Your task to perform on an android device: Go to battery settings Image 0: 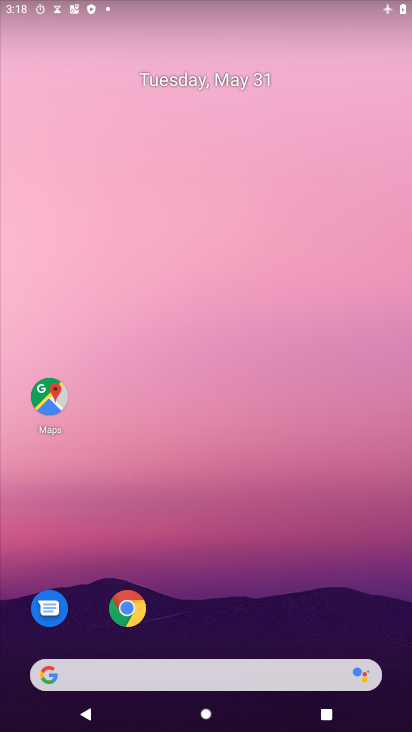
Step 0: drag from (232, 614) to (238, 150)
Your task to perform on an android device: Go to battery settings Image 1: 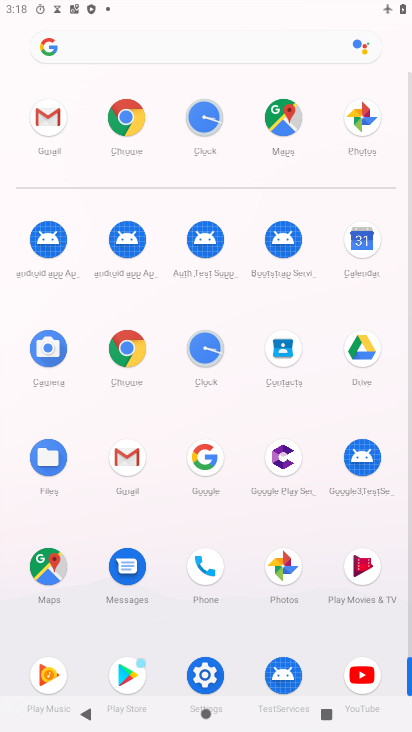
Step 1: click (209, 672)
Your task to perform on an android device: Go to battery settings Image 2: 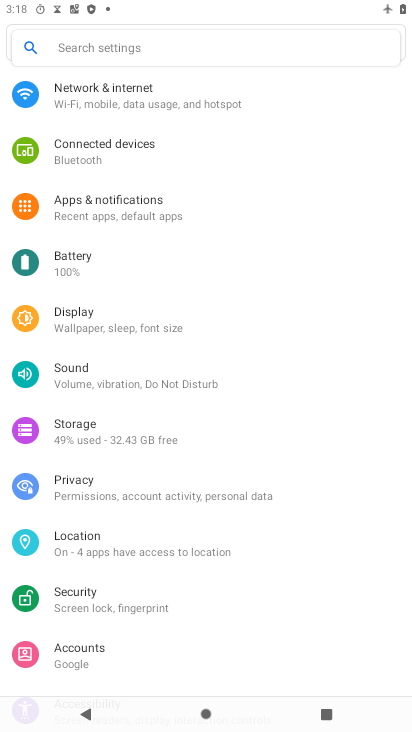
Step 2: click (89, 274)
Your task to perform on an android device: Go to battery settings Image 3: 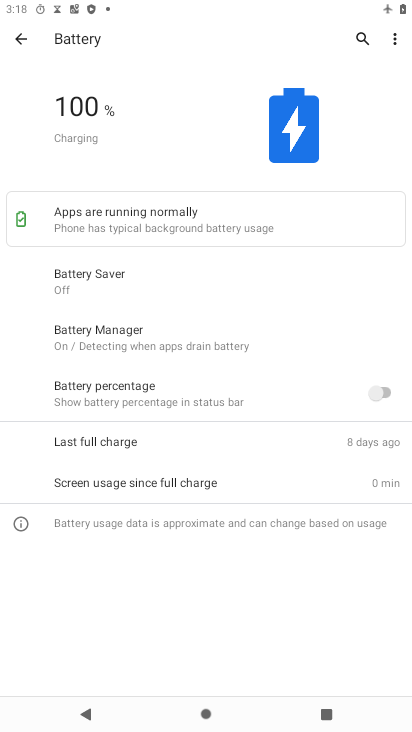
Step 3: task complete